Your task to perform on an android device: see tabs open on other devices in the chrome app Image 0: 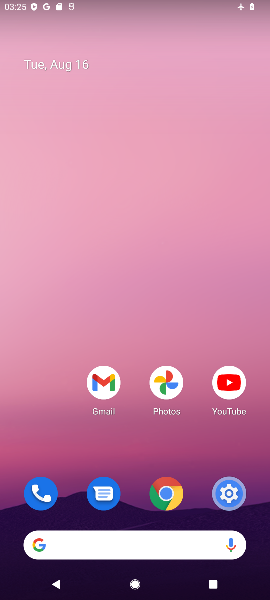
Step 0: drag from (68, 456) to (81, 77)
Your task to perform on an android device: see tabs open on other devices in the chrome app Image 1: 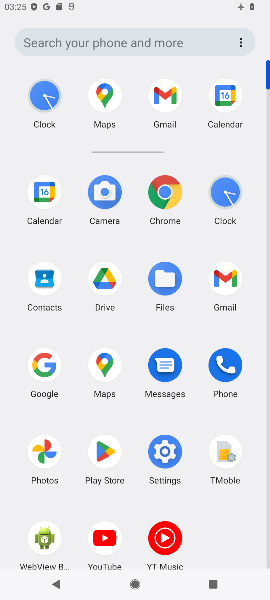
Step 1: click (169, 201)
Your task to perform on an android device: see tabs open on other devices in the chrome app Image 2: 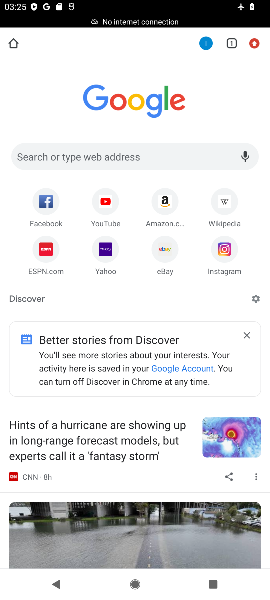
Step 2: click (254, 43)
Your task to perform on an android device: see tabs open on other devices in the chrome app Image 3: 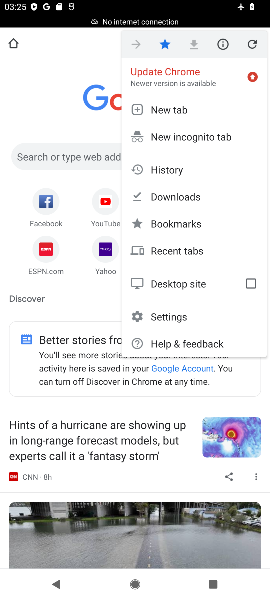
Step 3: click (187, 251)
Your task to perform on an android device: see tabs open on other devices in the chrome app Image 4: 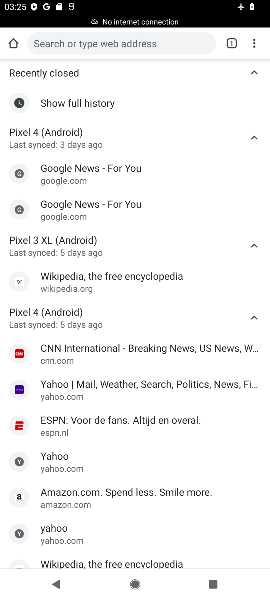
Step 4: click (232, 40)
Your task to perform on an android device: see tabs open on other devices in the chrome app Image 5: 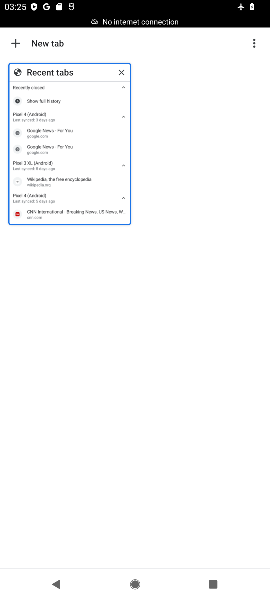
Step 5: task complete